Your task to perform on an android device: Go to Android settings Image 0: 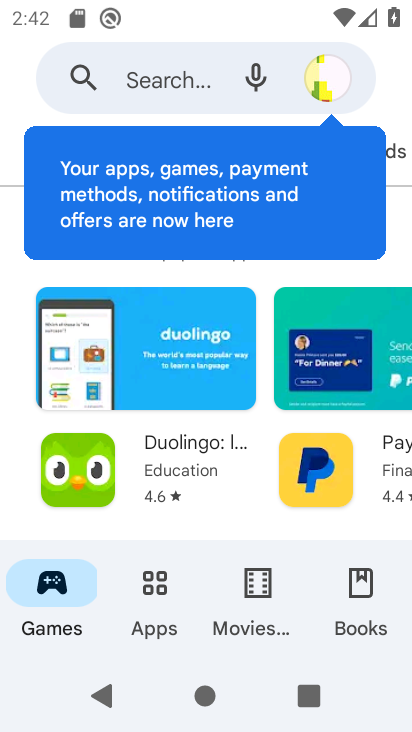
Step 0: press home button
Your task to perform on an android device: Go to Android settings Image 1: 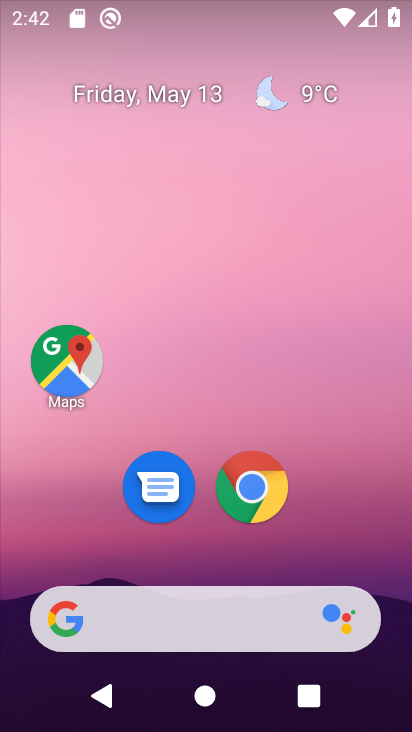
Step 1: drag from (172, 599) to (143, 123)
Your task to perform on an android device: Go to Android settings Image 2: 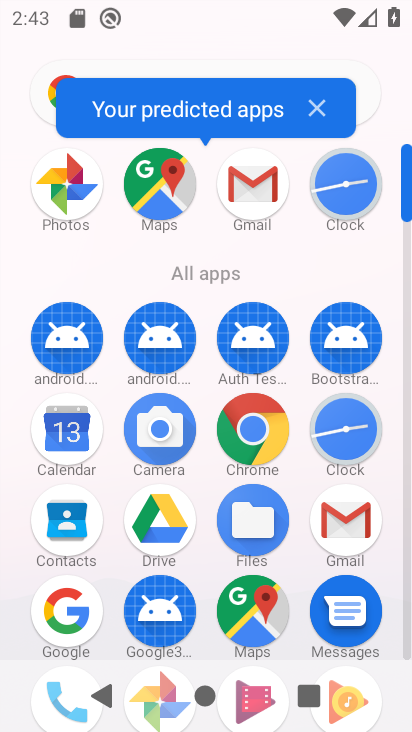
Step 2: drag from (160, 591) to (106, 140)
Your task to perform on an android device: Go to Android settings Image 3: 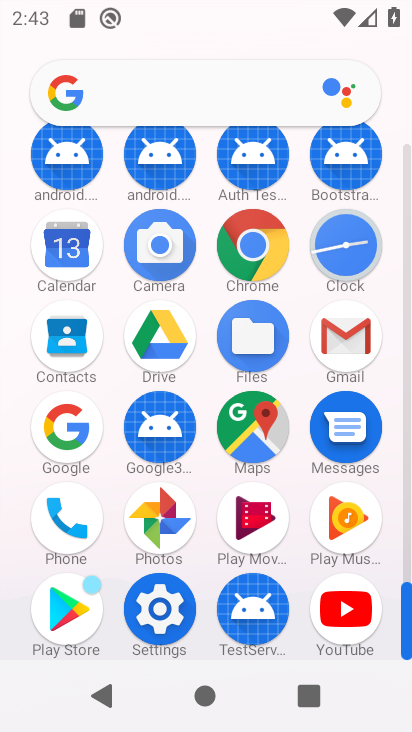
Step 3: click (146, 627)
Your task to perform on an android device: Go to Android settings Image 4: 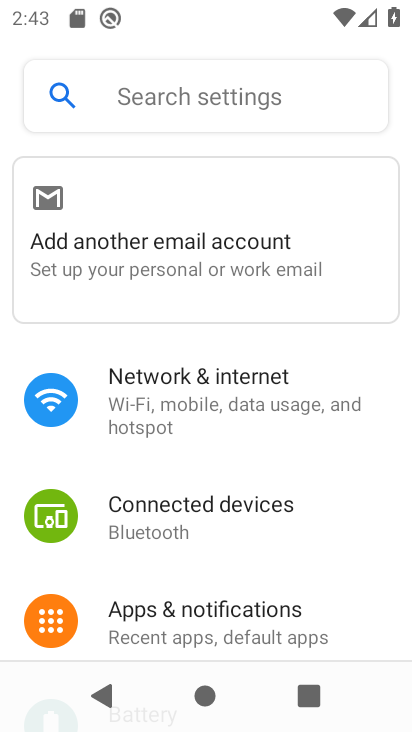
Step 4: drag from (221, 499) to (193, 52)
Your task to perform on an android device: Go to Android settings Image 5: 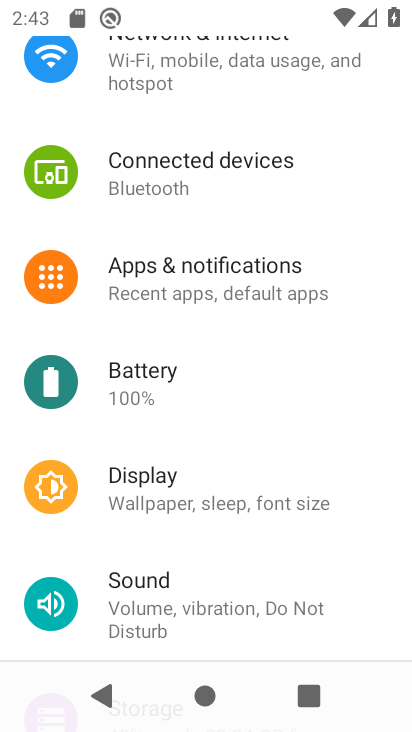
Step 5: drag from (203, 569) to (166, 31)
Your task to perform on an android device: Go to Android settings Image 6: 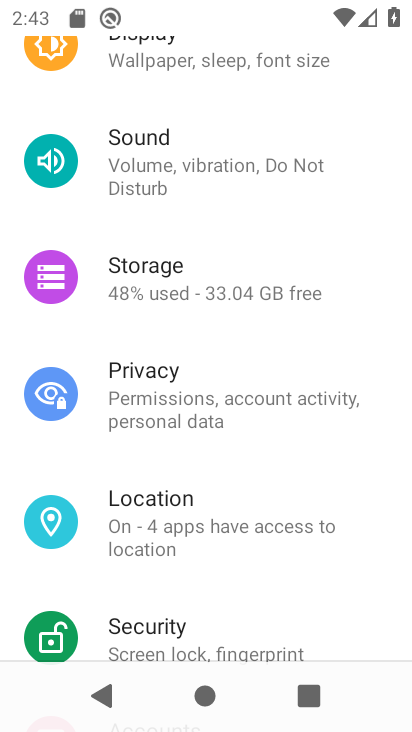
Step 6: drag from (186, 585) to (81, 11)
Your task to perform on an android device: Go to Android settings Image 7: 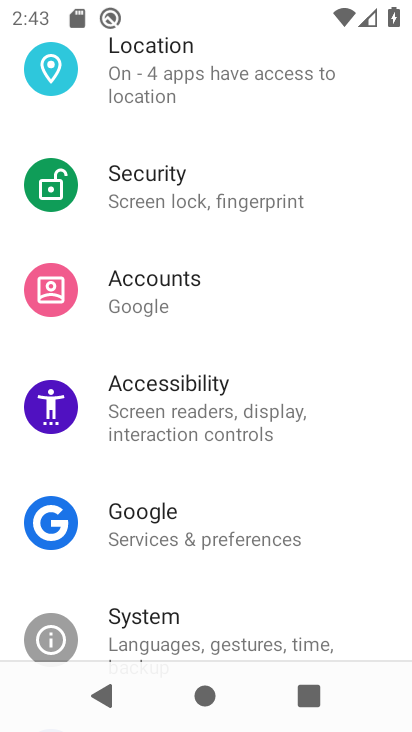
Step 7: drag from (205, 589) to (156, 9)
Your task to perform on an android device: Go to Android settings Image 8: 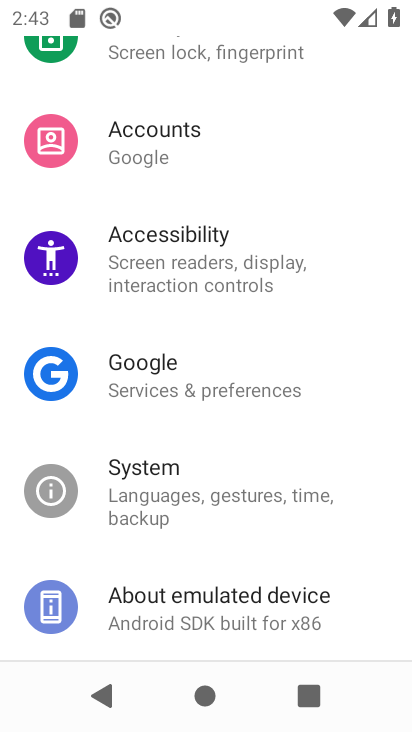
Step 8: click (240, 601)
Your task to perform on an android device: Go to Android settings Image 9: 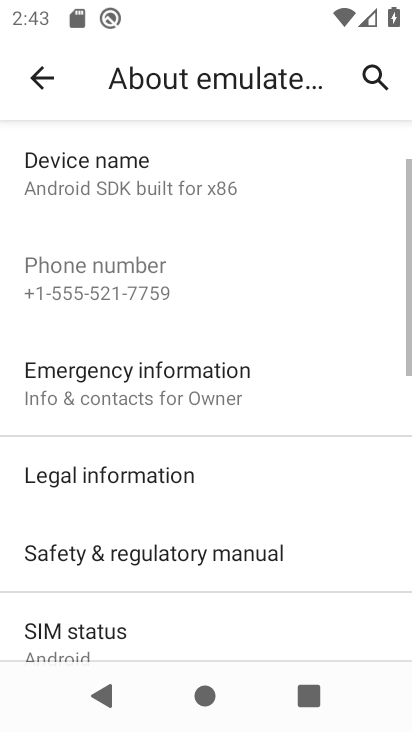
Step 9: task complete